Your task to perform on an android device: Open Google Maps Image 0: 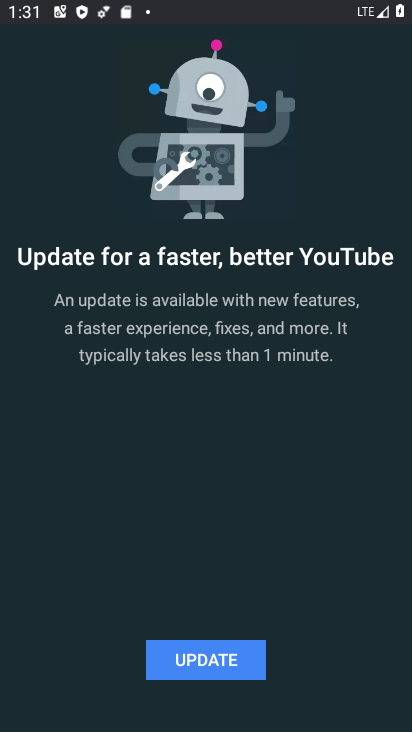
Step 0: press home button
Your task to perform on an android device: Open Google Maps Image 1: 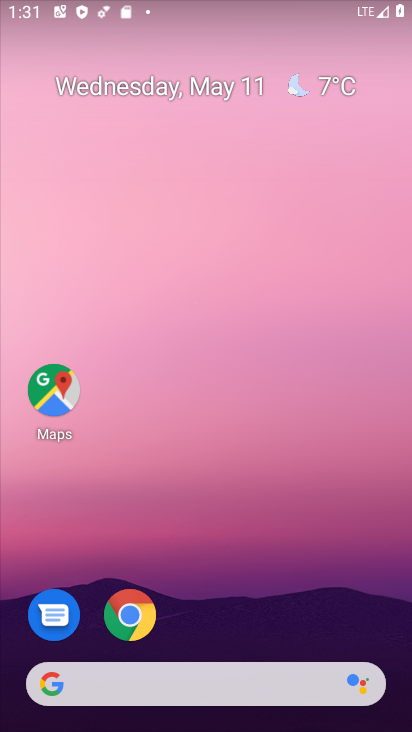
Step 1: drag from (301, 602) to (298, 556)
Your task to perform on an android device: Open Google Maps Image 2: 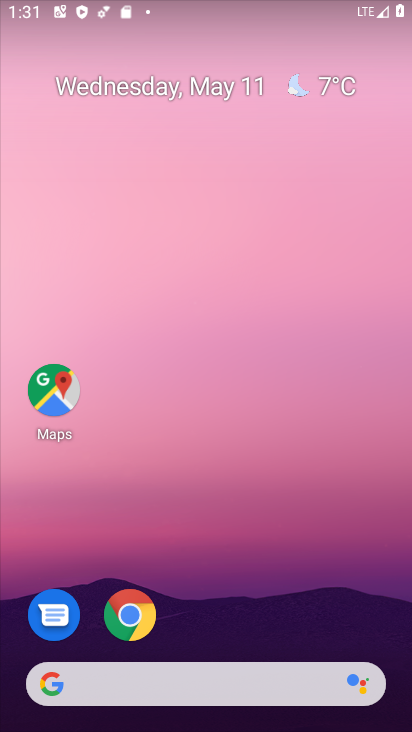
Step 2: click (66, 394)
Your task to perform on an android device: Open Google Maps Image 3: 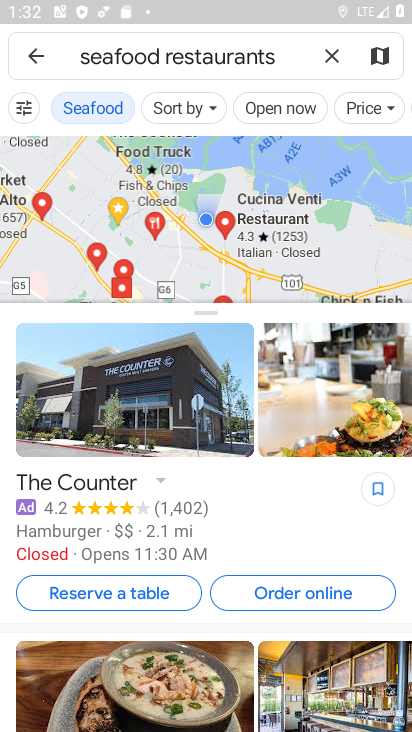
Step 3: task complete